Your task to perform on an android device: find which apps use the phone's location Image 0: 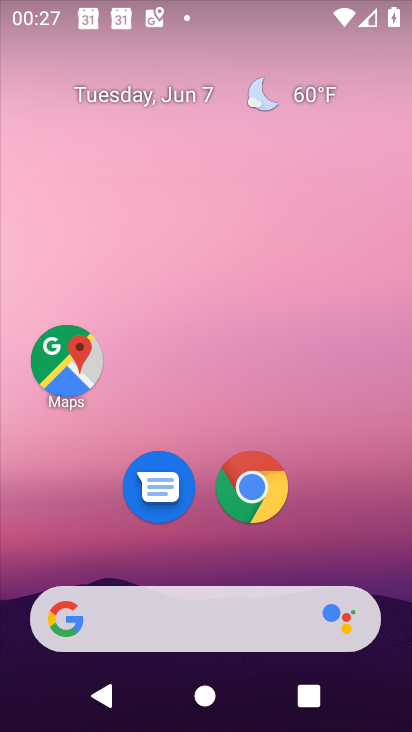
Step 0: drag from (387, 563) to (316, 158)
Your task to perform on an android device: find which apps use the phone's location Image 1: 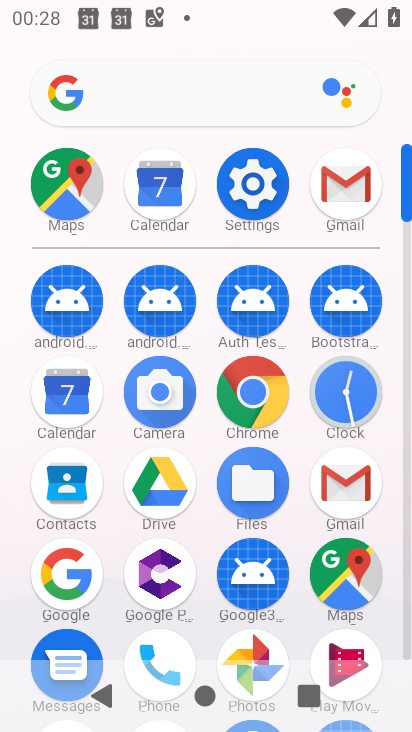
Step 1: click (245, 213)
Your task to perform on an android device: find which apps use the phone's location Image 2: 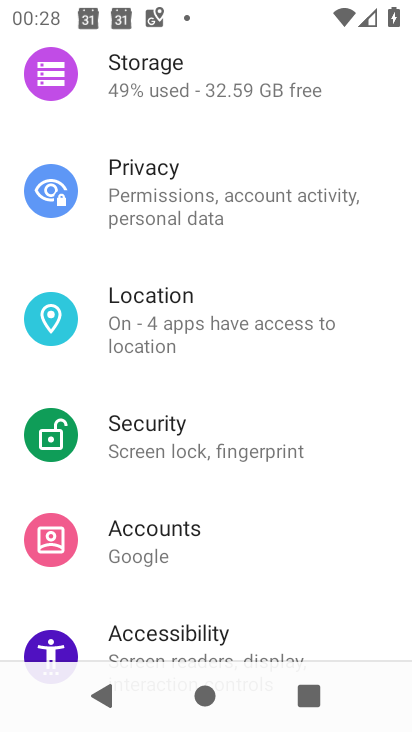
Step 2: click (201, 309)
Your task to perform on an android device: find which apps use the phone's location Image 3: 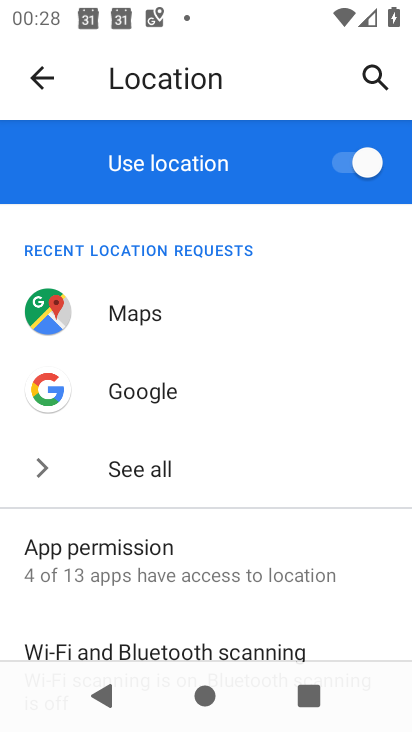
Step 3: drag from (206, 579) to (169, 250)
Your task to perform on an android device: find which apps use the phone's location Image 4: 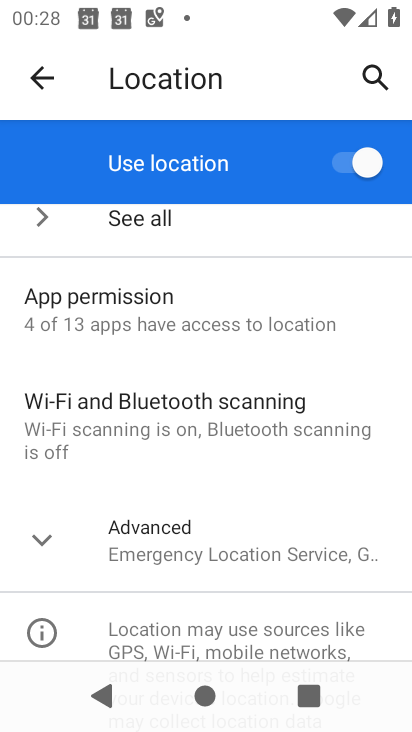
Step 4: click (208, 320)
Your task to perform on an android device: find which apps use the phone's location Image 5: 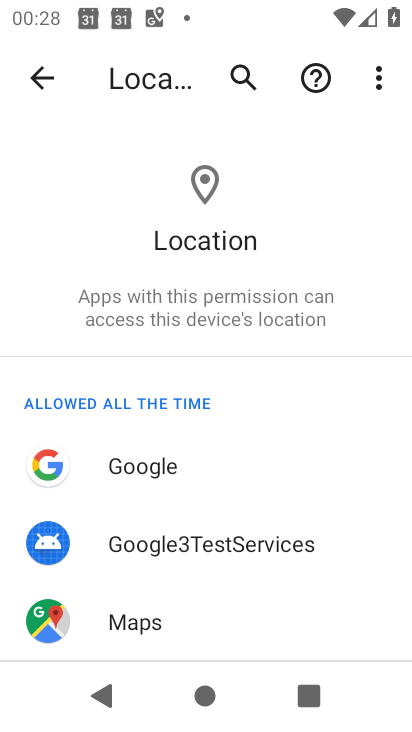
Step 5: task complete